Your task to perform on an android device: Show me popular videos on Youtube Image 0: 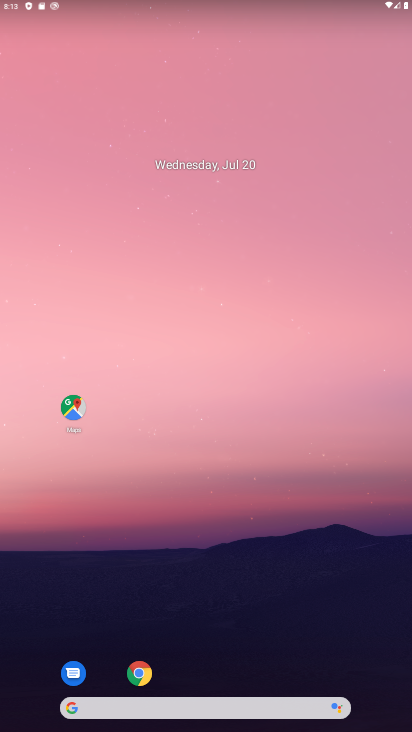
Step 0: drag from (242, 709) to (248, 263)
Your task to perform on an android device: Show me popular videos on Youtube Image 1: 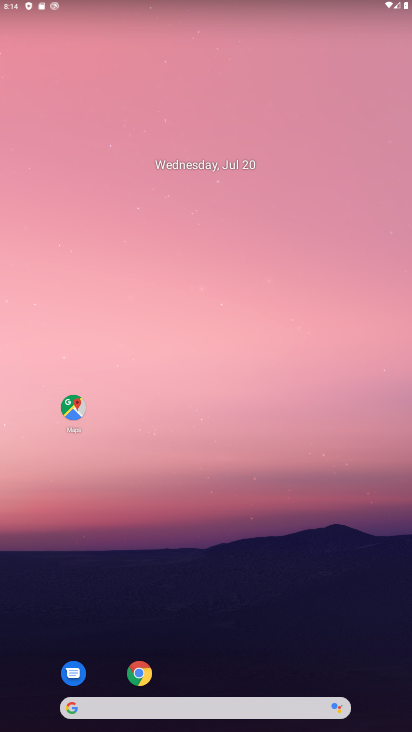
Step 1: drag from (238, 704) to (257, 202)
Your task to perform on an android device: Show me popular videos on Youtube Image 2: 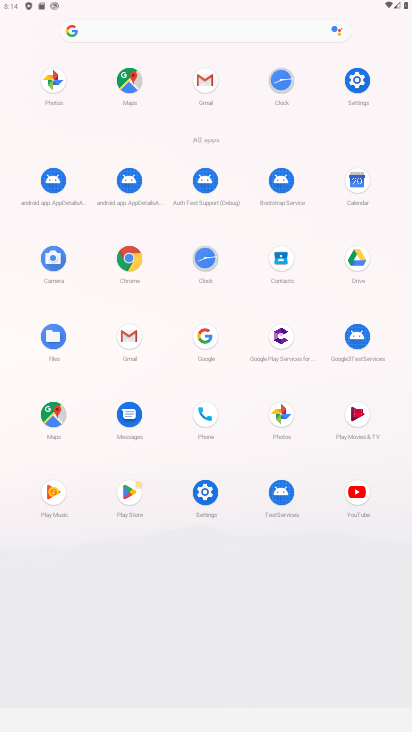
Step 2: click (356, 488)
Your task to perform on an android device: Show me popular videos on Youtube Image 3: 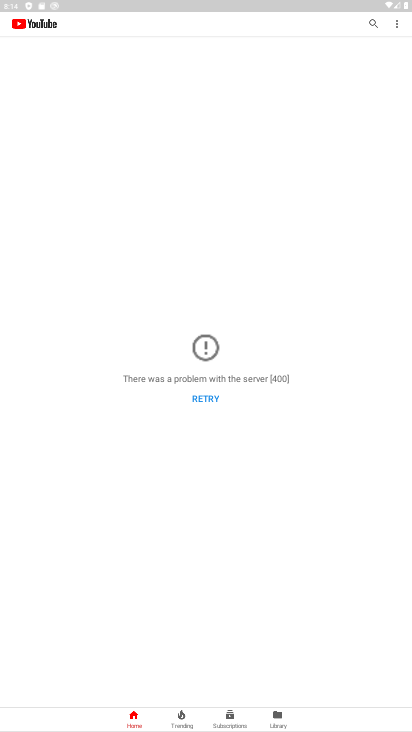
Step 3: task complete